Your task to perform on an android device: turn off picture-in-picture Image 0: 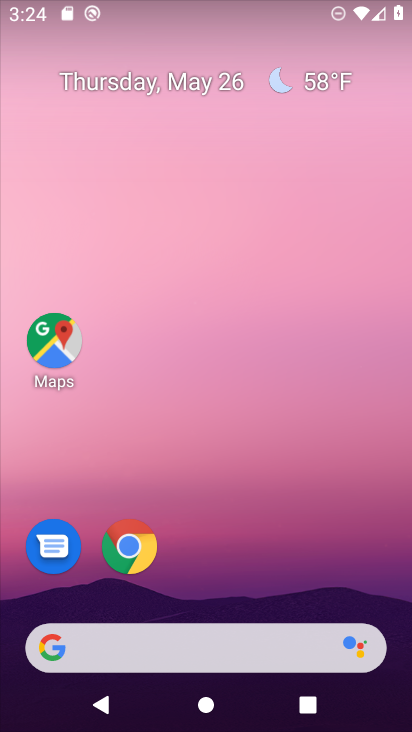
Step 0: click (124, 540)
Your task to perform on an android device: turn off picture-in-picture Image 1: 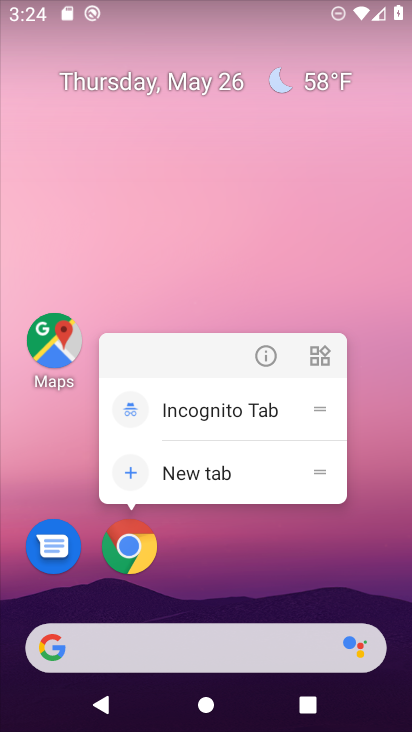
Step 1: click (264, 348)
Your task to perform on an android device: turn off picture-in-picture Image 2: 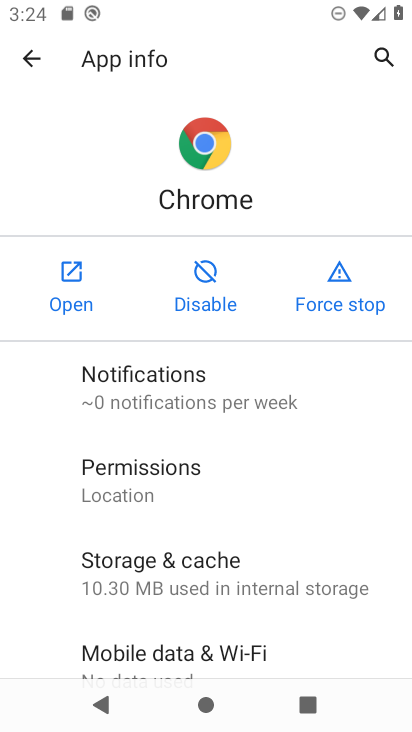
Step 2: drag from (238, 621) to (255, 318)
Your task to perform on an android device: turn off picture-in-picture Image 3: 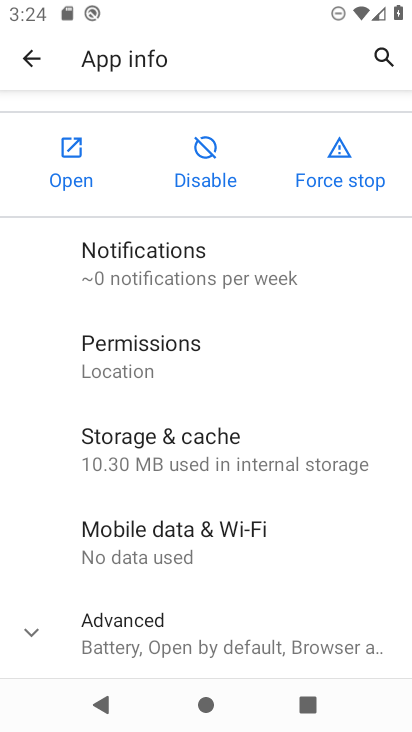
Step 3: click (34, 625)
Your task to perform on an android device: turn off picture-in-picture Image 4: 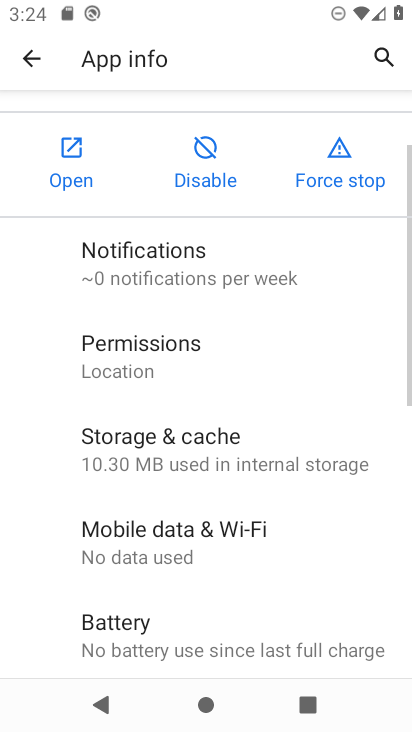
Step 4: drag from (200, 521) to (225, 206)
Your task to perform on an android device: turn off picture-in-picture Image 5: 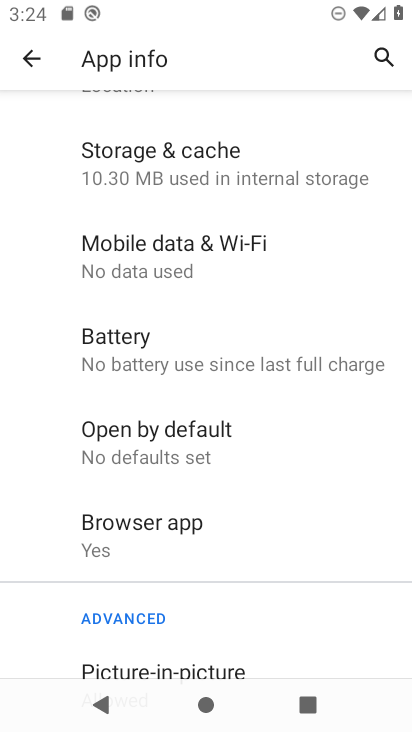
Step 5: click (246, 659)
Your task to perform on an android device: turn off picture-in-picture Image 6: 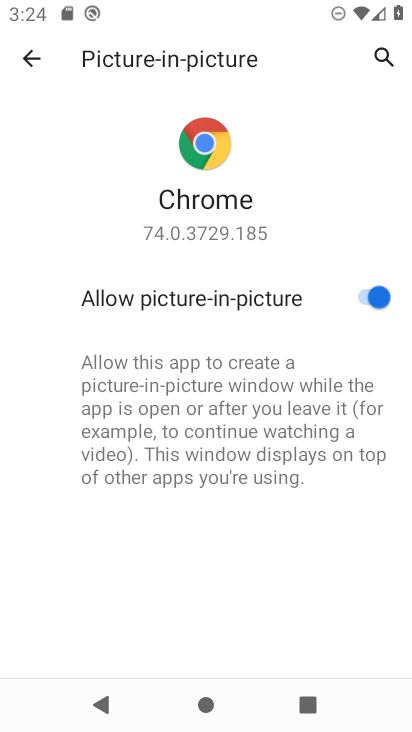
Step 6: click (367, 290)
Your task to perform on an android device: turn off picture-in-picture Image 7: 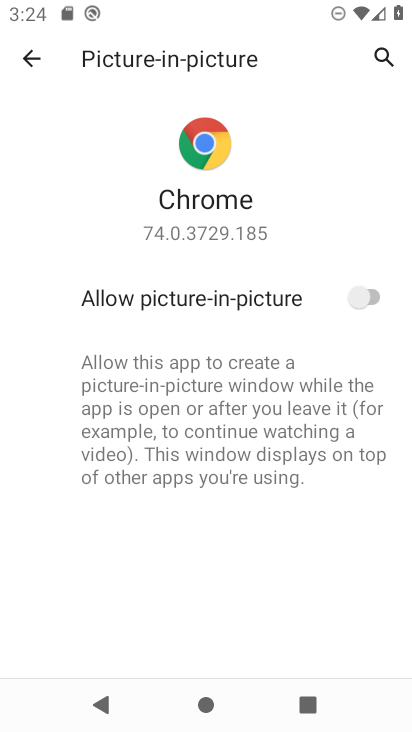
Step 7: task complete